Your task to perform on an android device: star an email in the gmail app Image 0: 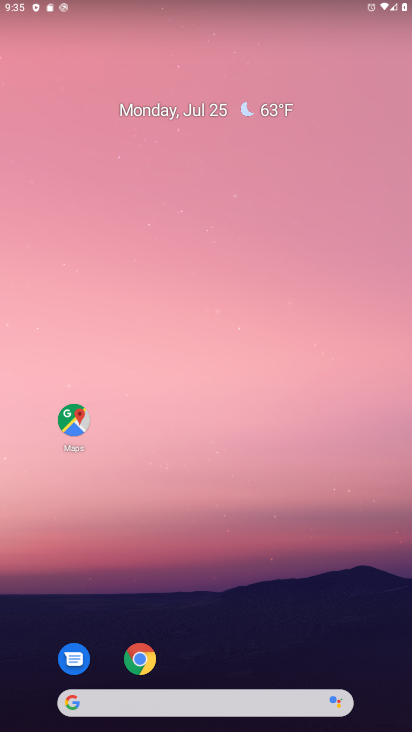
Step 0: drag from (229, 729) to (216, 5)
Your task to perform on an android device: star an email in the gmail app Image 1: 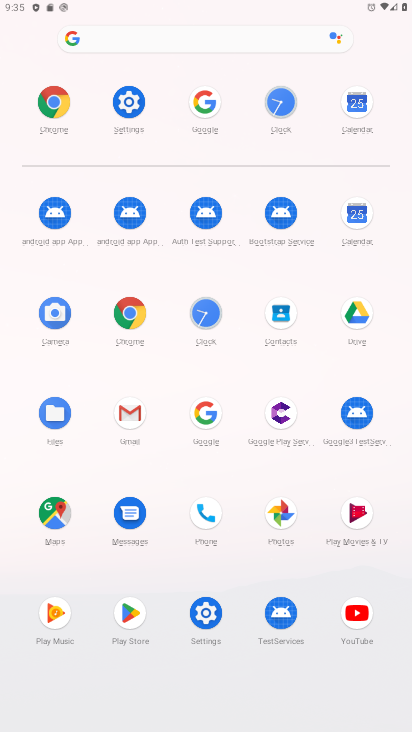
Step 1: click (131, 410)
Your task to perform on an android device: star an email in the gmail app Image 2: 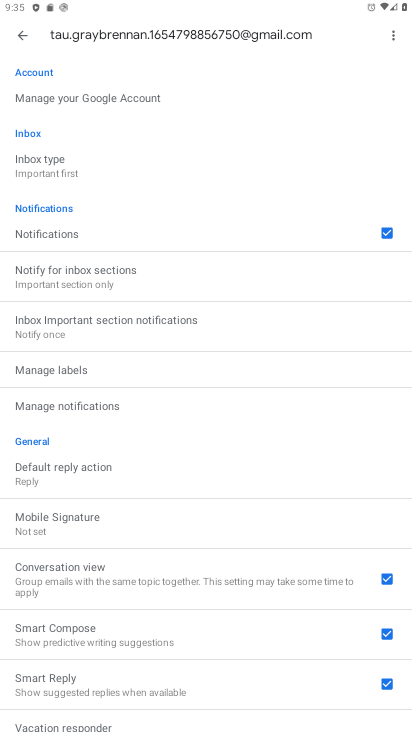
Step 2: click (29, 32)
Your task to perform on an android device: star an email in the gmail app Image 3: 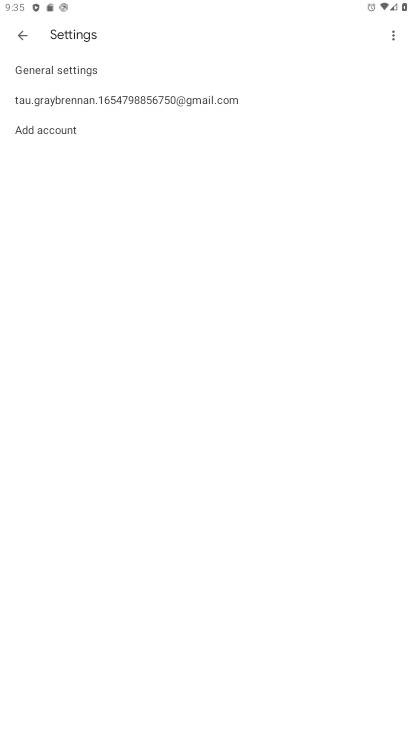
Step 3: click (23, 35)
Your task to perform on an android device: star an email in the gmail app Image 4: 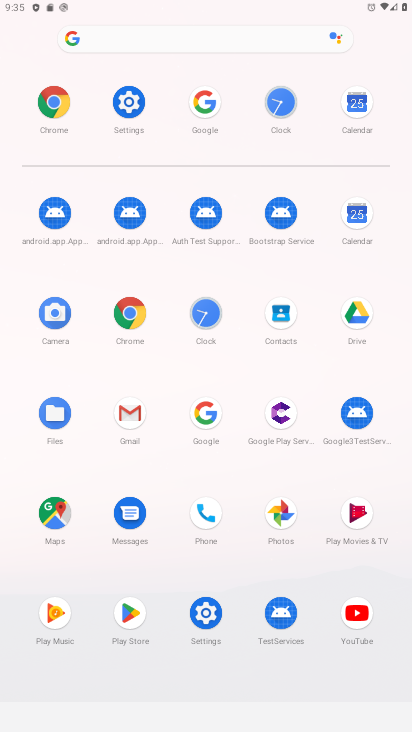
Step 4: click (131, 416)
Your task to perform on an android device: star an email in the gmail app Image 5: 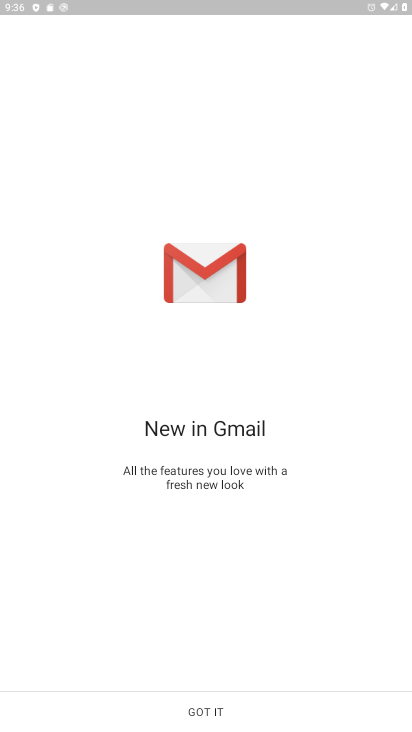
Step 5: click (211, 707)
Your task to perform on an android device: star an email in the gmail app Image 6: 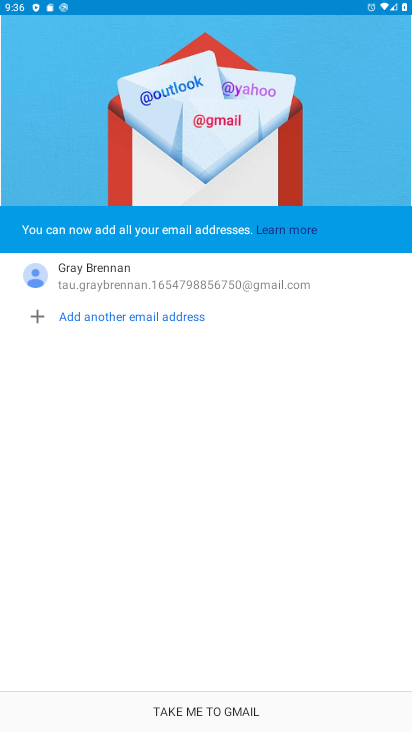
Step 6: click (211, 707)
Your task to perform on an android device: star an email in the gmail app Image 7: 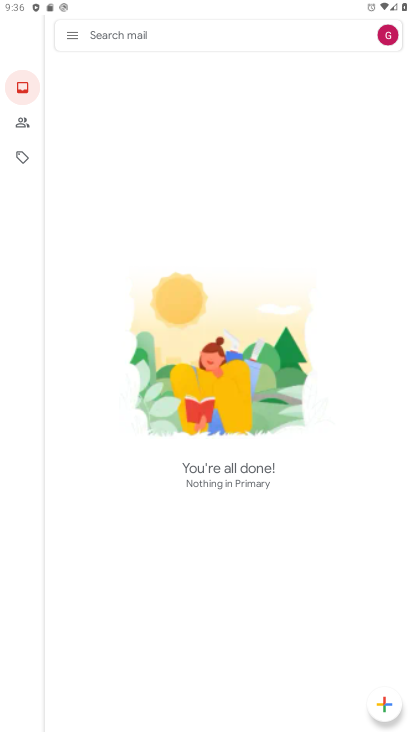
Step 7: task complete